Your task to perform on an android device: toggle priority inbox in the gmail app Image 0: 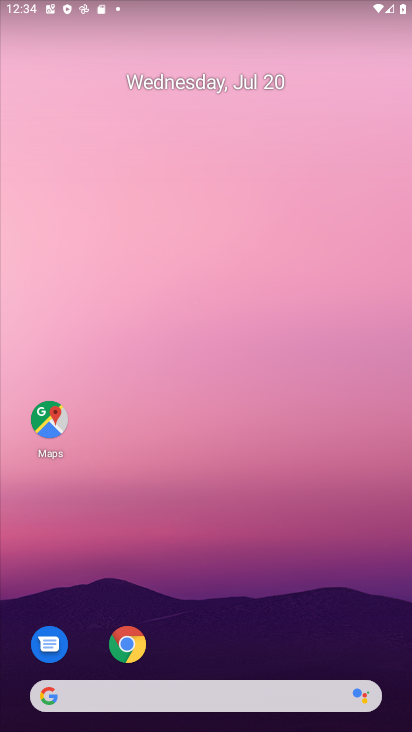
Step 0: press home button
Your task to perform on an android device: toggle priority inbox in the gmail app Image 1: 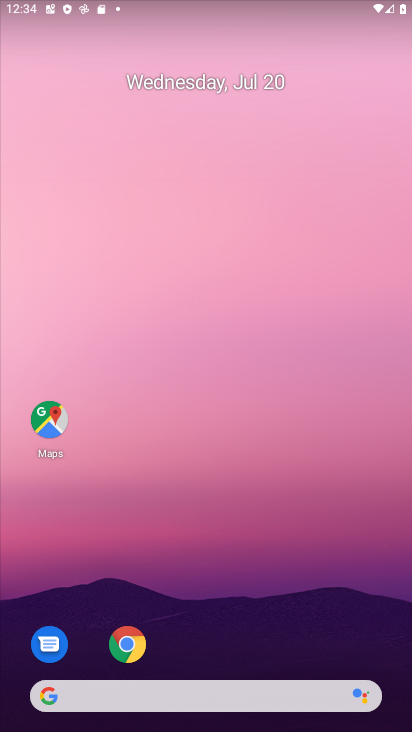
Step 1: drag from (343, 659) to (305, 278)
Your task to perform on an android device: toggle priority inbox in the gmail app Image 2: 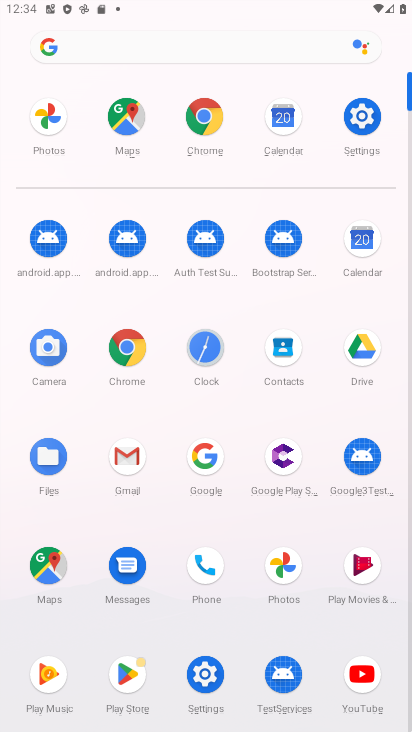
Step 2: click (127, 434)
Your task to perform on an android device: toggle priority inbox in the gmail app Image 3: 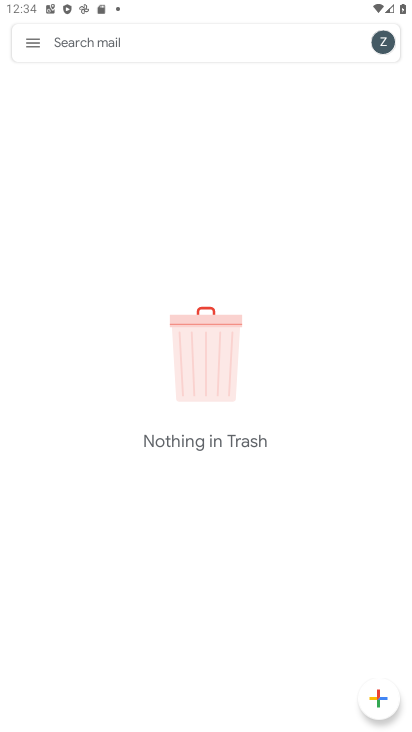
Step 3: click (32, 42)
Your task to perform on an android device: toggle priority inbox in the gmail app Image 4: 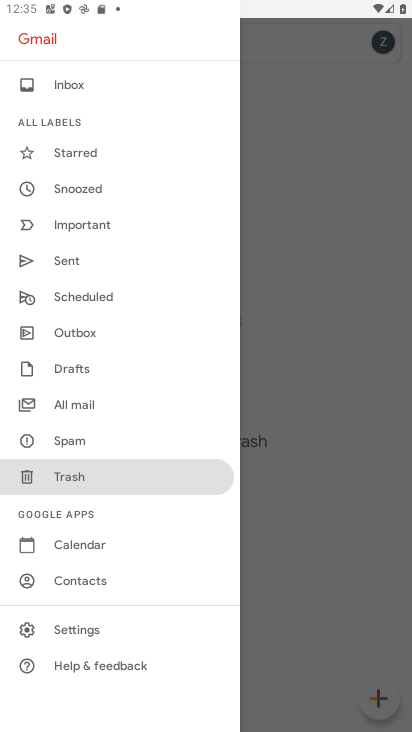
Step 4: click (67, 635)
Your task to perform on an android device: toggle priority inbox in the gmail app Image 5: 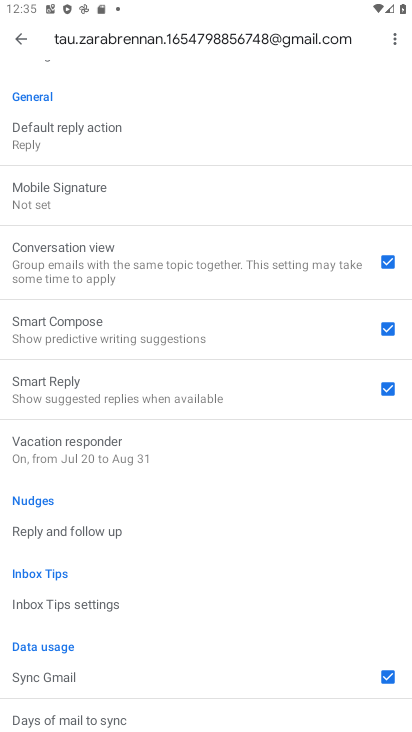
Step 5: drag from (101, 159) to (139, 730)
Your task to perform on an android device: toggle priority inbox in the gmail app Image 6: 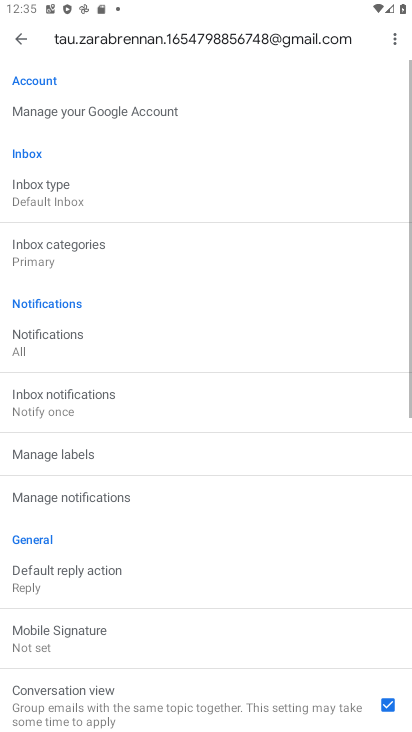
Step 6: click (62, 193)
Your task to perform on an android device: toggle priority inbox in the gmail app Image 7: 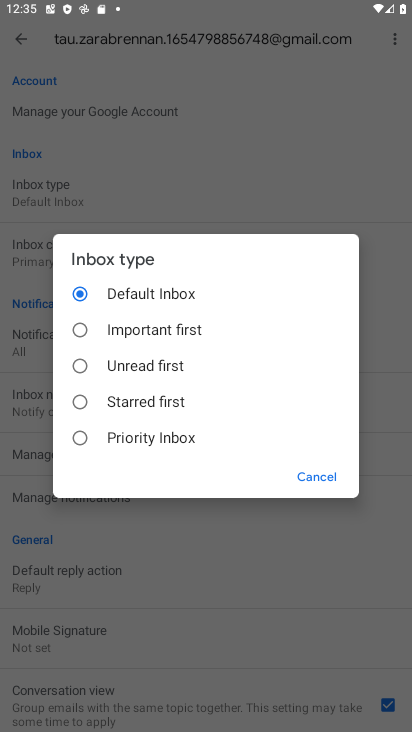
Step 7: click (168, 442)
Your task to perform on an android device: toggle priority inbox in the gmail app Image 8: 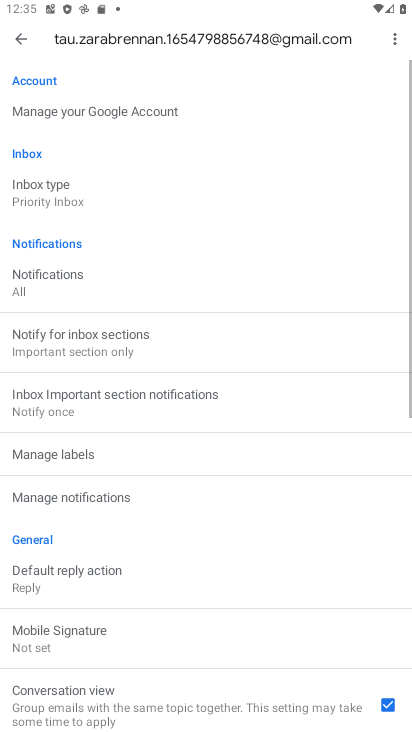
Step 8: task complete